Your task to perform on an android device: Open Youtube and go to the subscriptions tab Image 0: 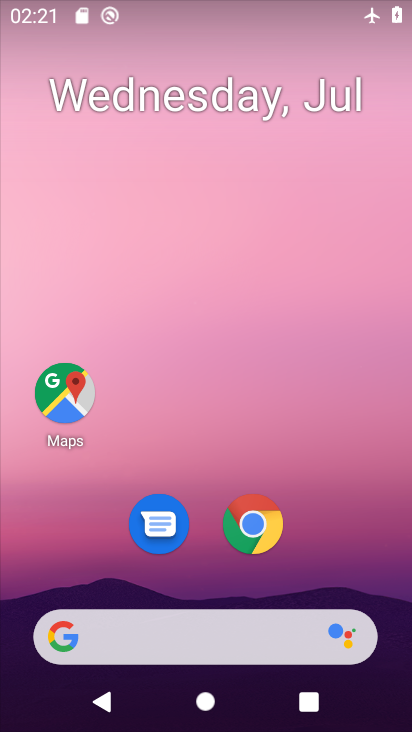
Step 0: drag from (359, 553) to (327, 86)
Your task to perform on an android device: Open Youtube and go to the subscriptions tab Image 1: 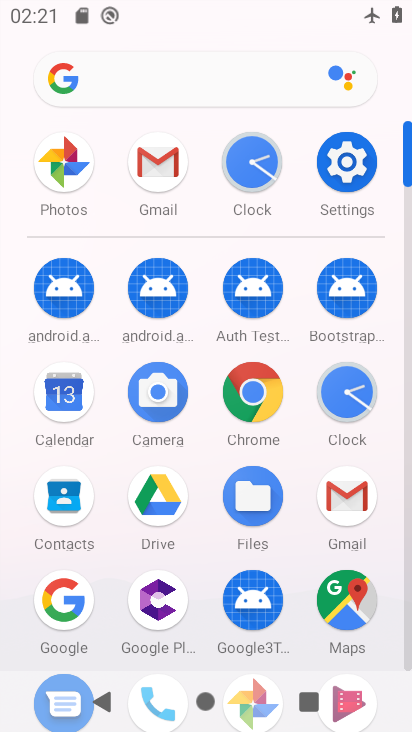
Step 1: drag from (203, 520) to (205, 44)
Your task to perform on an android device: Open Youtube and go to the subscriptions tab Image 2: 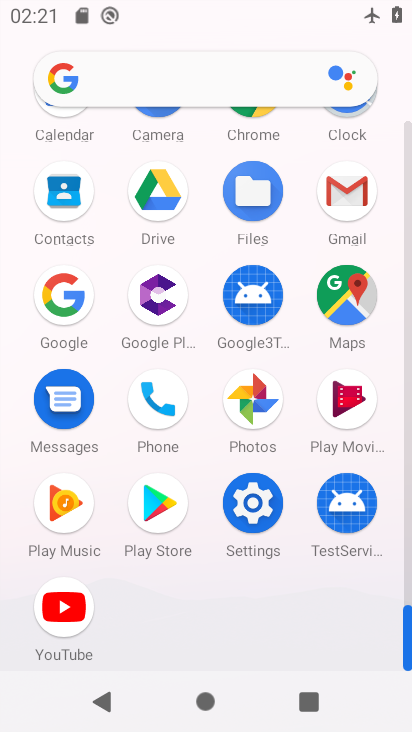
Step 2: click (79, 612)
Your task to perform on an android device: Open Youtube and go to the subscriptions tab Image 3: 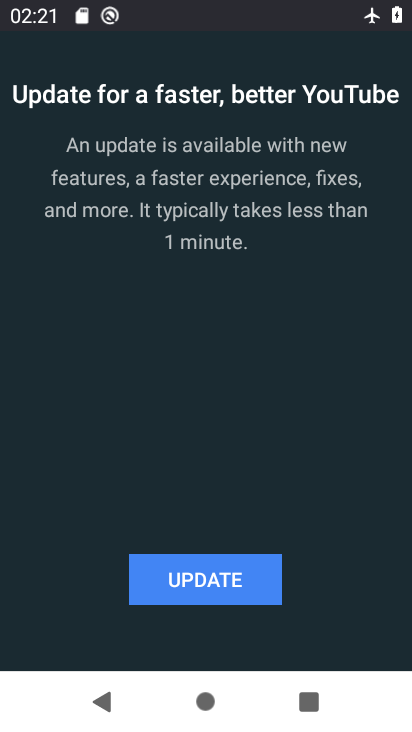
Step 3: click (252, 596)
Your task to perform on an android device: Open Youtube and go to the subscriptions tab Image 4: 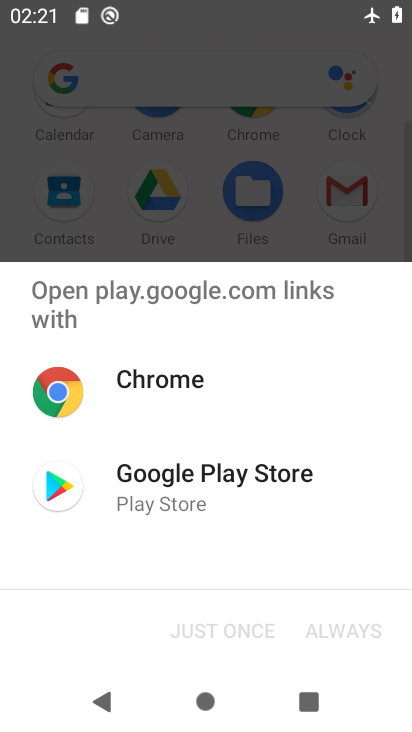
Step 4: click (165, 484)
Your task to perform on an android device: Open Youtube and go to the subscriptions tab Image 5: 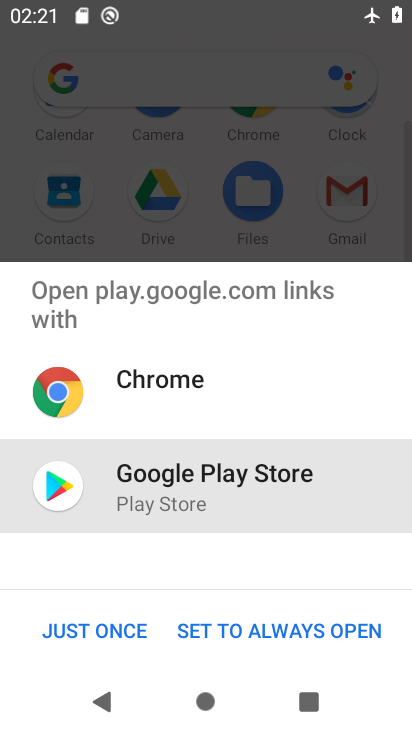
Step 5: click (117, 616)
Your task to perform on an android device: Open Youtube and go to the subscriptions tab Image 6: 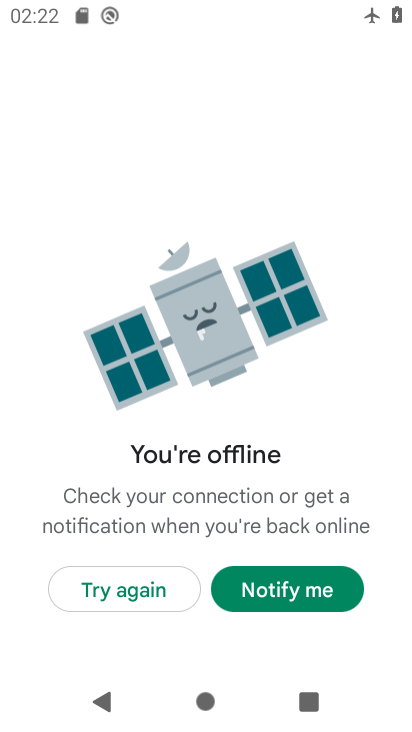
Step 6: click (102, 588)
Your task to perform on an android device: Open Youtube and go to the subscriptions tab Image 7: 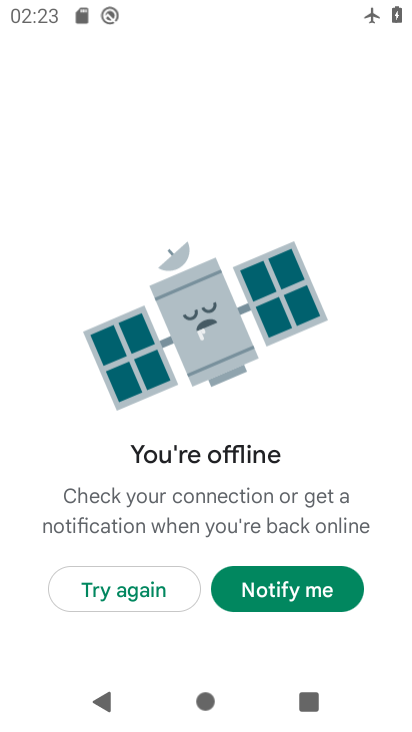
Step 7: task complete